Your task to perform on an android device: open app "Expedia: Hotels, Flights & Car" Image 0: 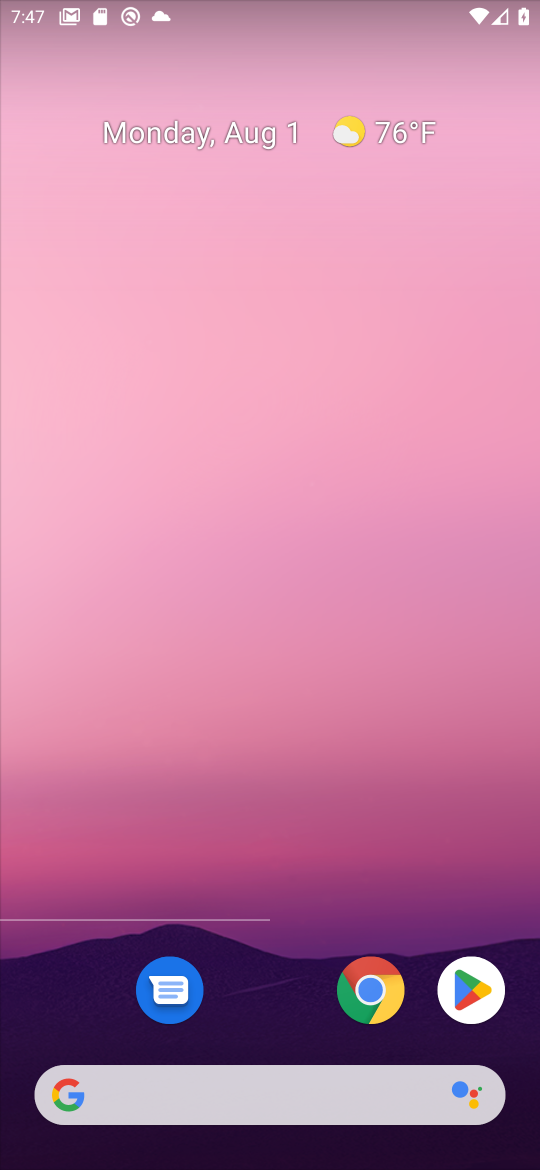
Step 0: press home button
Your task to perform on an android device: open app "Expedia: Hotels, Flights & Car" Image 1: 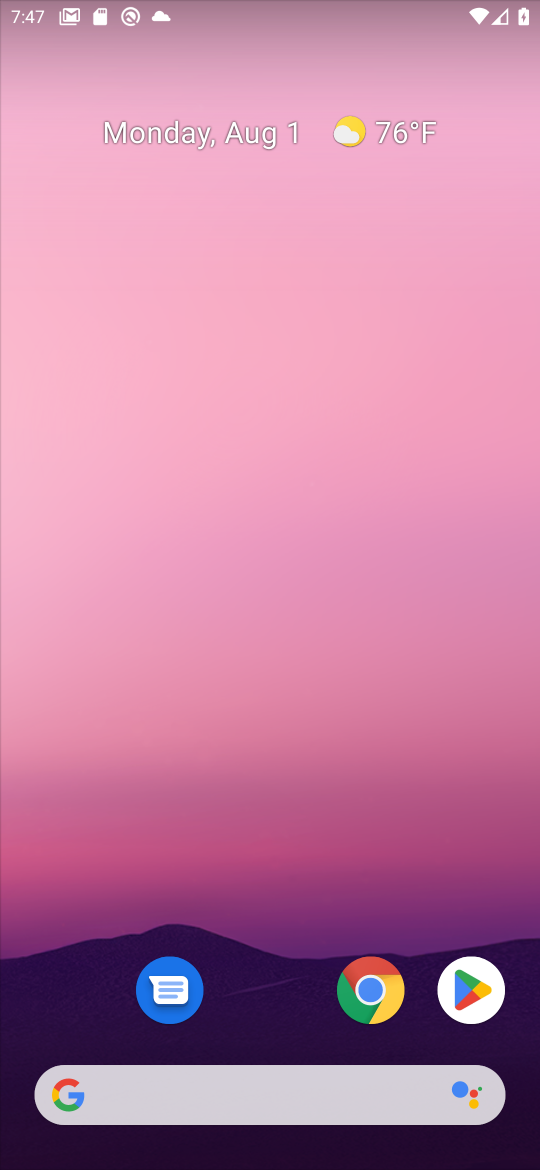
Step 1: click (490, 1030)
Your task to perform on an android device: open app "Expedia: Hotels, Flights & Car" Image 2: 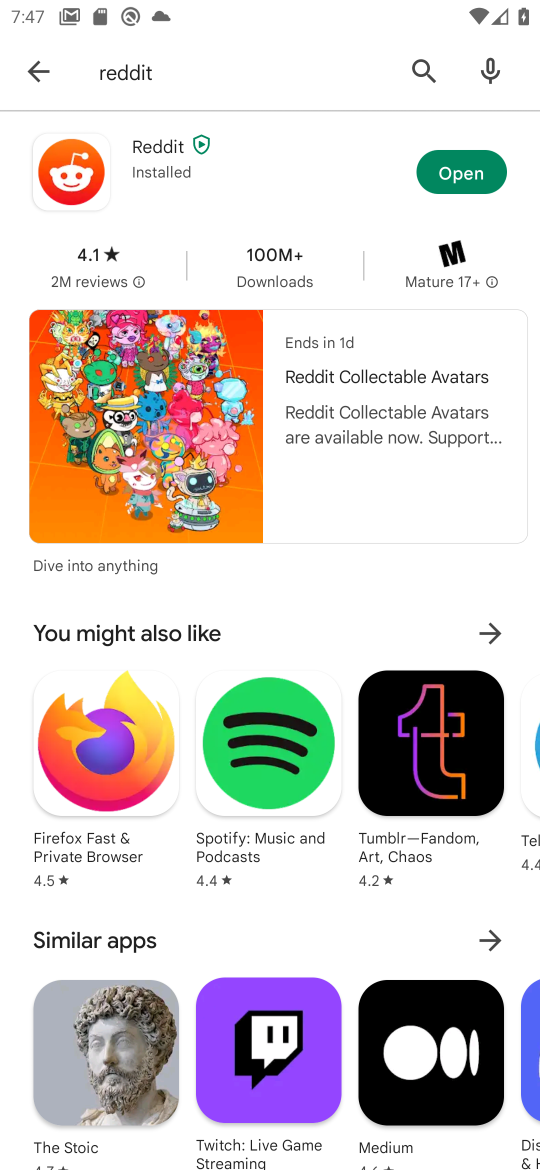
Step 2: click (419, 71)
Your task to perform on an android device: open app "Expedia: Hotels, Flights & Car" Image 3: 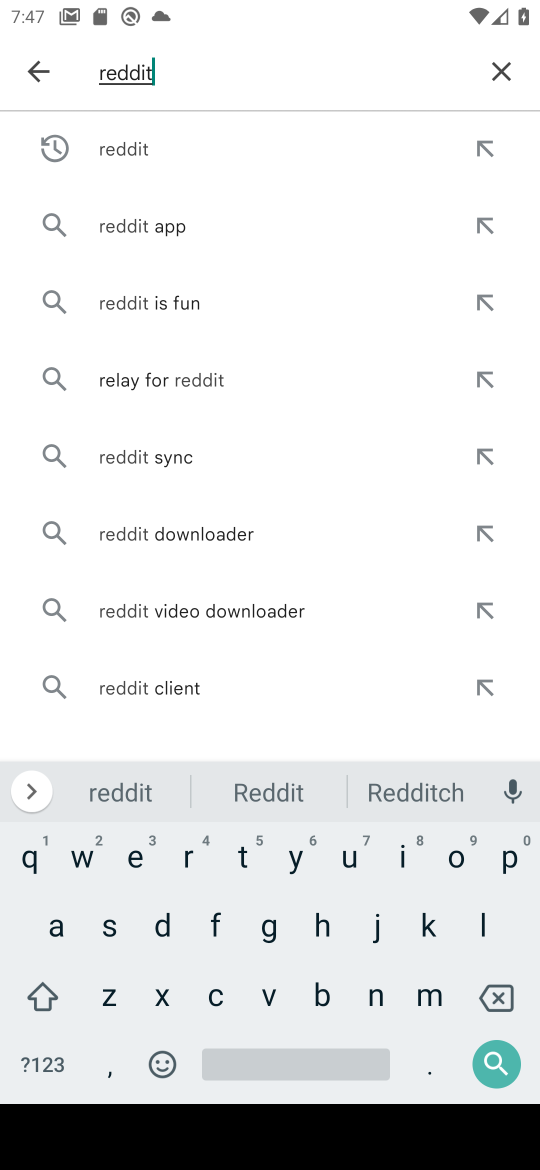
Step 3: click (493, 66)
Your task to perform on an android device: open app "Expedia: Hotels, Flights & Car" Image 4: 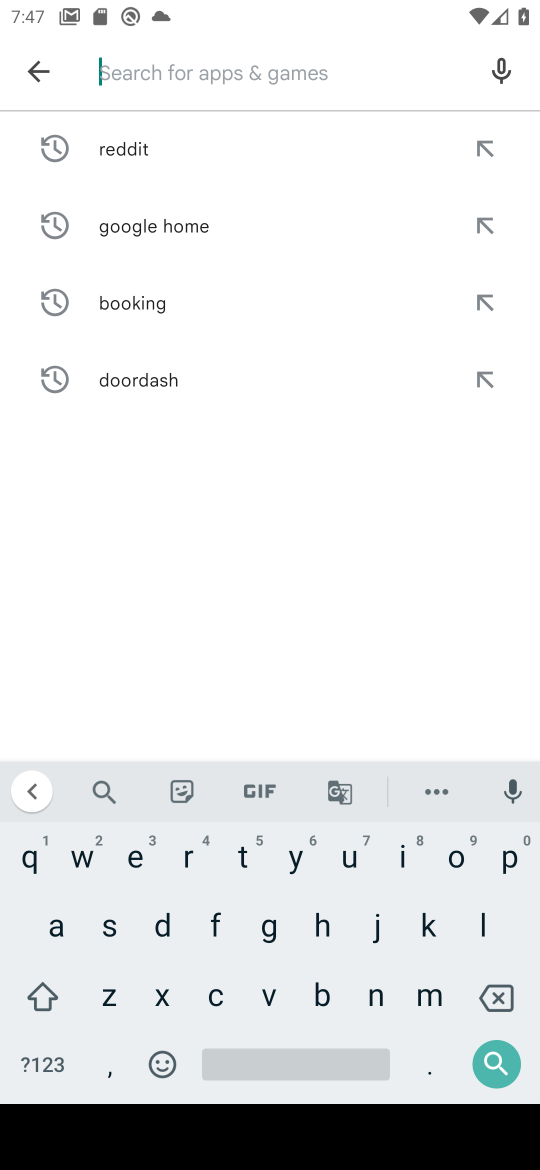
Step 4: click (123, 855)
Your task to perform on an android device: open app "Expedia: Hotels, Flights & Car" Image 5: 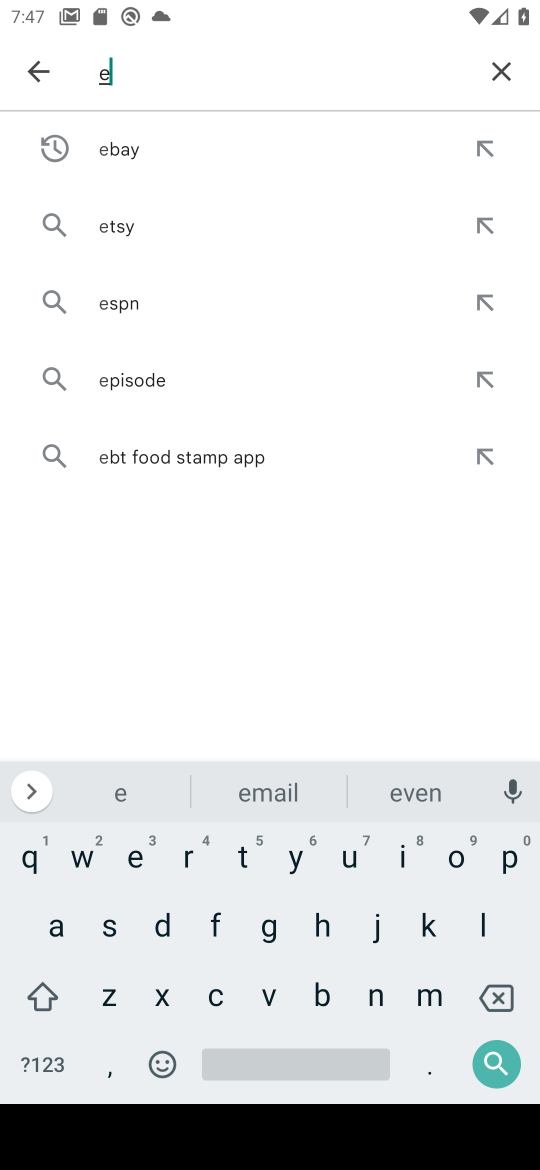
Step 5: click (161, 1004)
Your task to perform on an android device: open app "Expedia: Hotels, Flights & Car" Image 6: 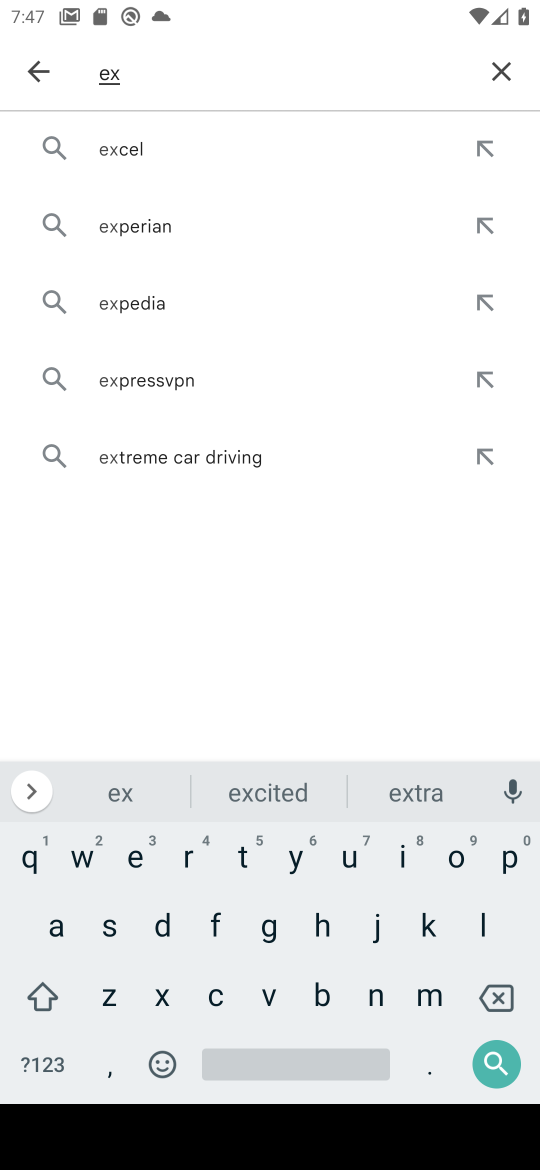
Step 6: click (505, 846)
Your task to perform on an android device: open app "Expedia: Hotels, Flights & Car" Image 7: 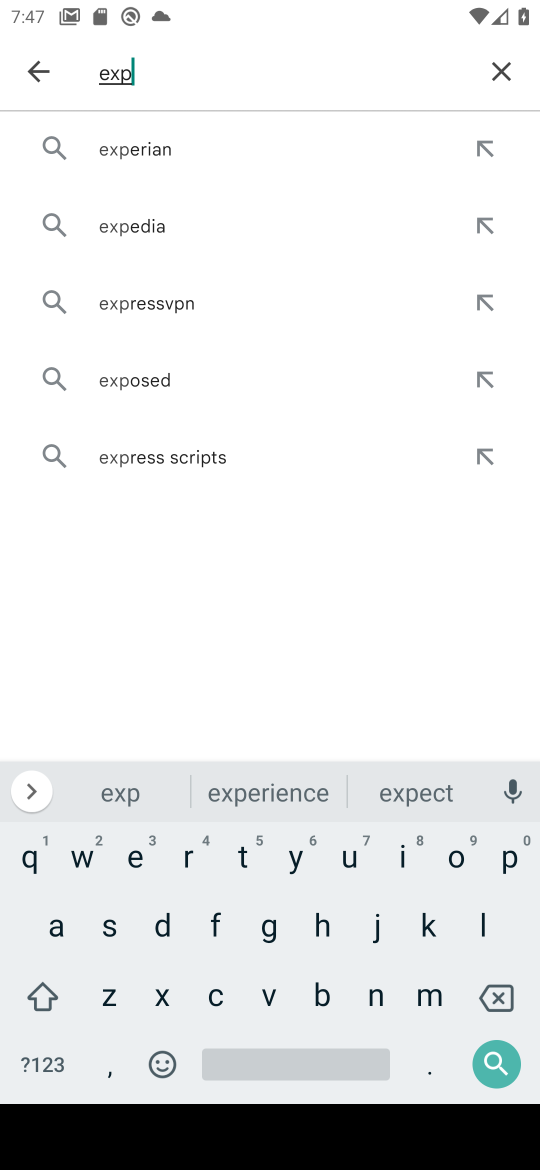
Step 7: click (159, 235)
Your task to perform on an android device: open app "Expedia: Hotels, Flights & Car" Image 8: 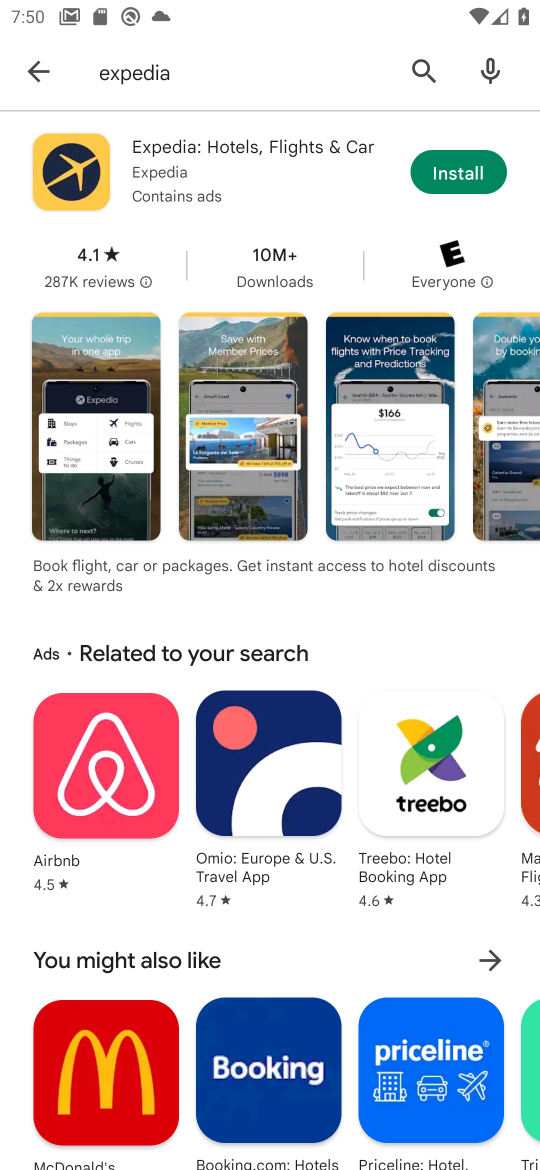
Step 8: task complete